Your task to perform on an android device: turn smart compose on in the gmail app Image 0: 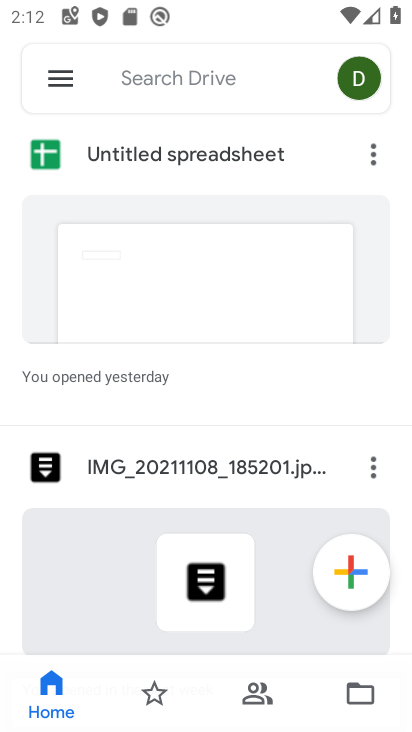
Step 0: press home button
Your task to perform on an android device: turn smart compose on in the gmail app Image 1: 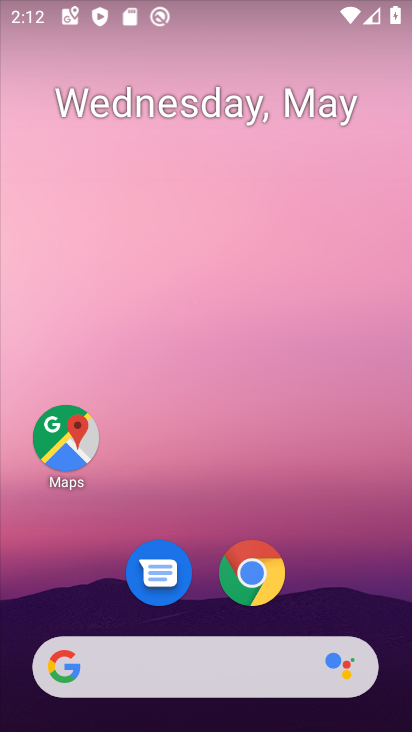
Step 1: drag from (320, 614) to (366, 6)
Your task to perform on an android device: turn smart compose on in the gmail app Image 2: 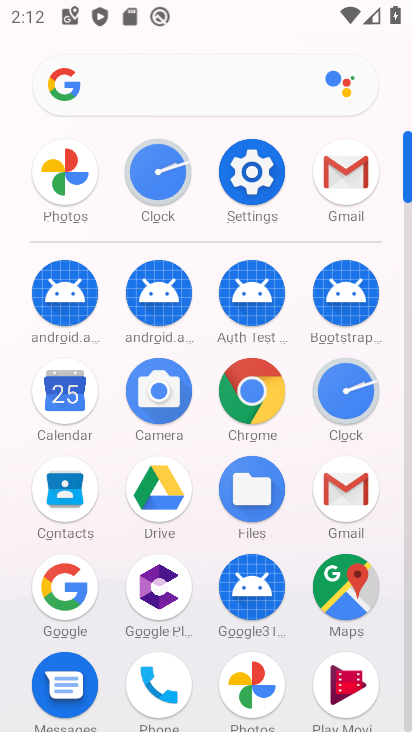
Step 2: click (261, 160)
Your task to perform on an android device: turn smart compose on in the gmail app Image 3: 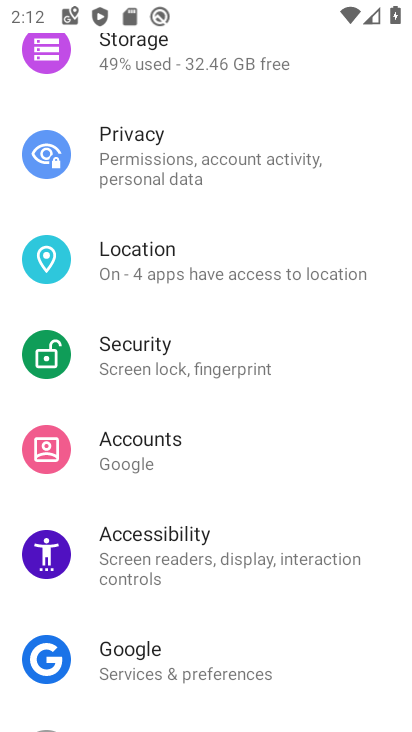
Step 3: press back button
Your task to perform on an android device: turn smart compose on in the gmail app Image 4: 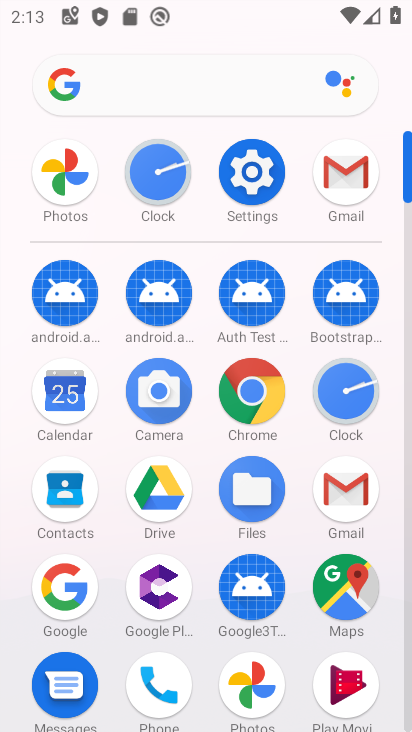
Step 4: click (346, 163)
Your task to perform on an android device: turn smart compose on in the gmail app Image 5: 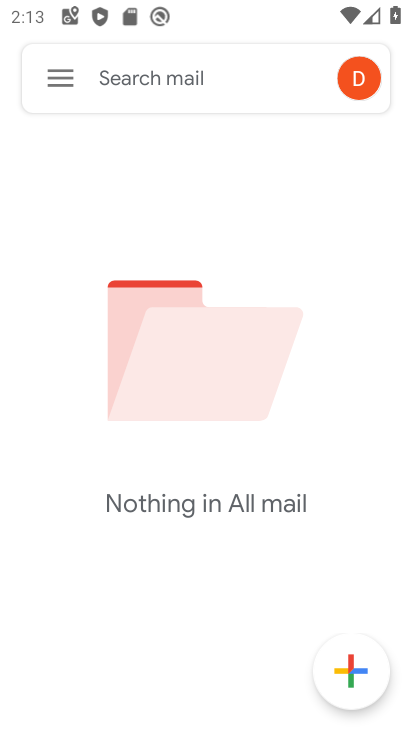
Step 5: click (61, 84)
Your task to perform on an android device: turn smart compose on in the gmail app Image 6: 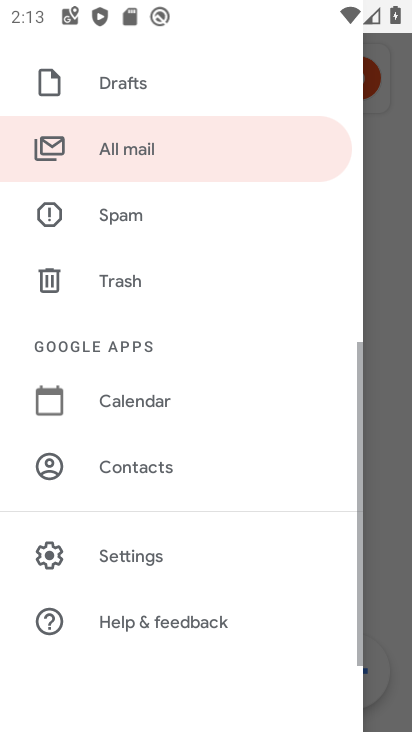
Step 6: click (87, 520)
Your task to perform on an android device: turn smart compose on in the gmail app Image 7: 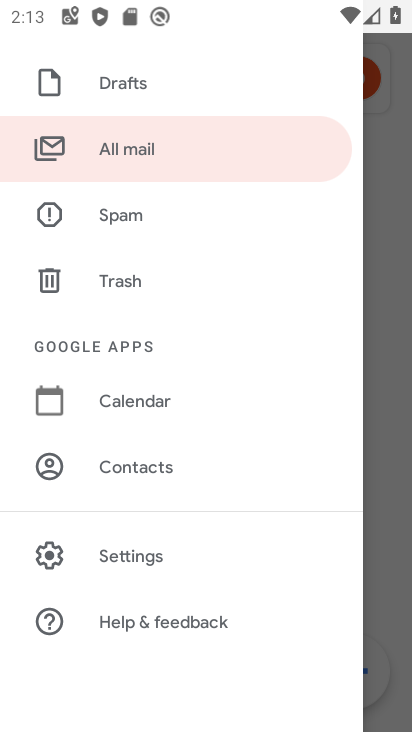
Step 7: click (88, 542)
Your task to perform on an android device: turn smart compose on in the gmail app Image 8: 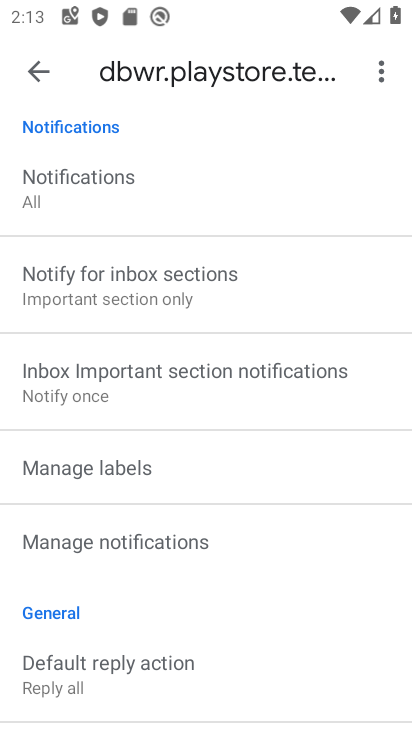
Step 8: task complete